Your task to perform on an android device: Open ESPN.com Image 0: 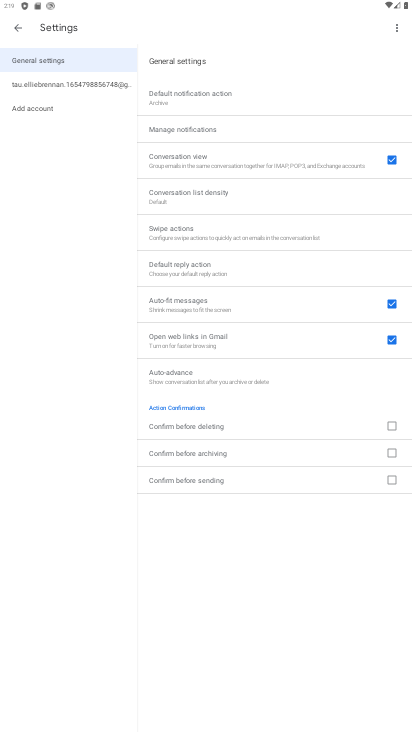
Step 0: press home button
Your task to perform on an android device: Open ESPN.com Image 1: 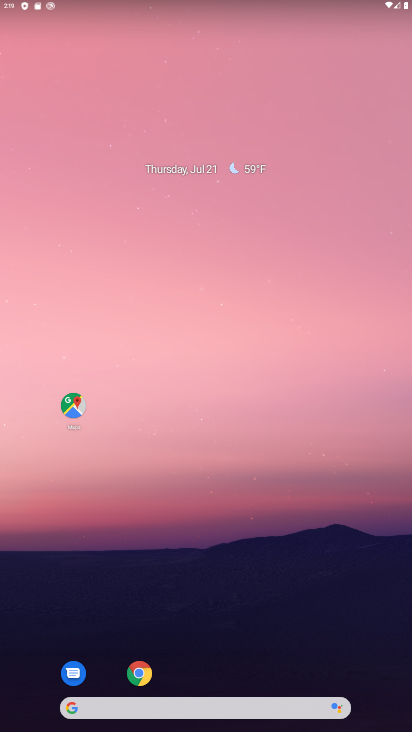
Step 1: click (136, 674)
Your task to perform on an android device: Open ESPN.com Image 2: 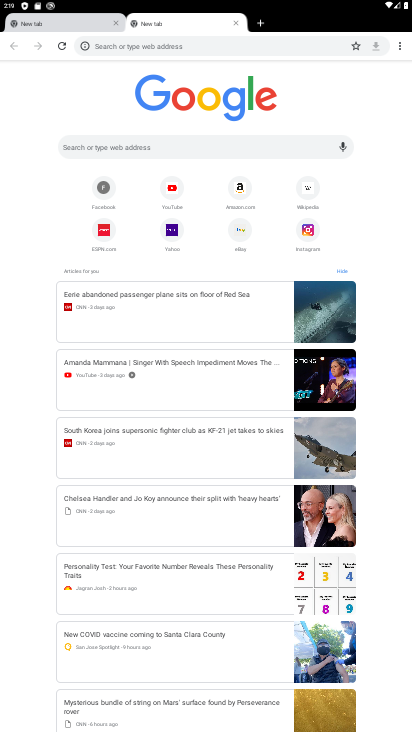
Step 2: click (131, 146)
Your task to perform on an android device: Open ESPN.com Image 3: 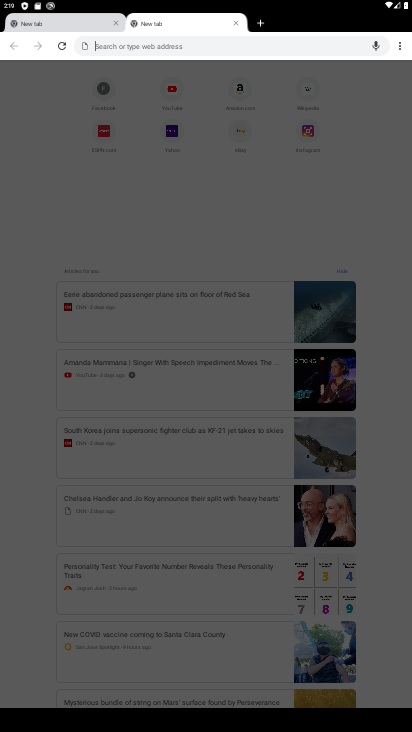
Step 3: type "espn.com"
Your task to perform on an android device: Open ESPN.com Image 4: 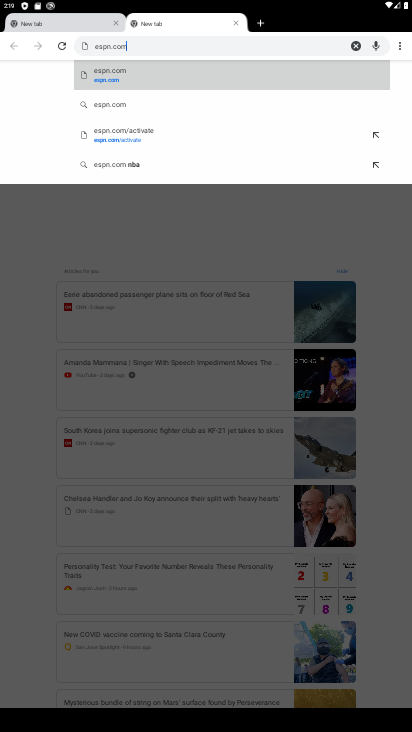
Step 4: click (114, 71)
Your task to perform on an android device: Open ESPN.com Image 5: 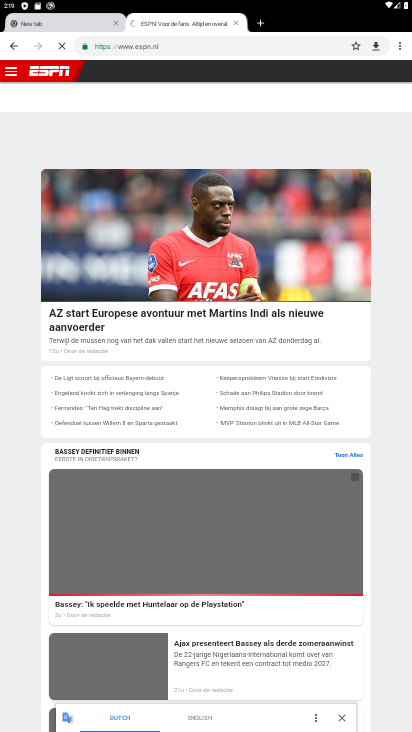
Step 5: task complete